Your task to perform on an android device: uninstall "Pluto TV - Live TV and Movies" Image 0: 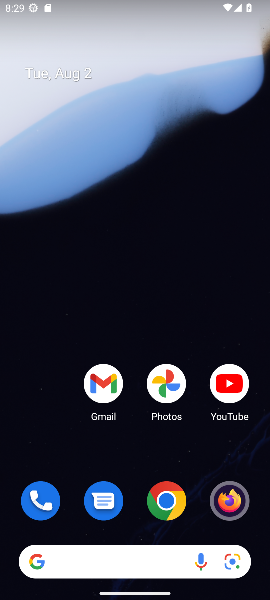
Step 0: drag from (146, 531) to (106, 113)
Your task to perform on an android device: uninstall "Pluto TV - Live TV and Movies" Image 1: 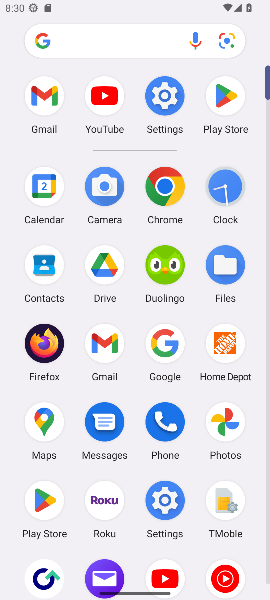
Step 1: click (44, 494)
Your task to perform on an android device: uninstall "Pluto TV - Live TV and Movies" Image 2: 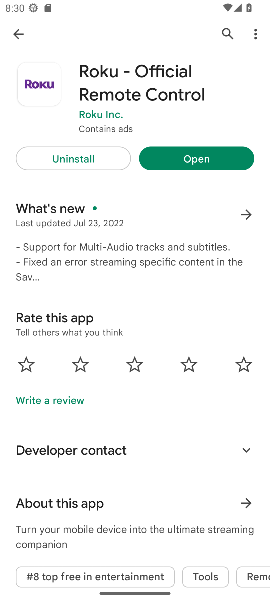
Step 2: click (233, 31)
Your task to perform on an android device: uninstall "Pluto TV - Live TV and Movies" Image 3: 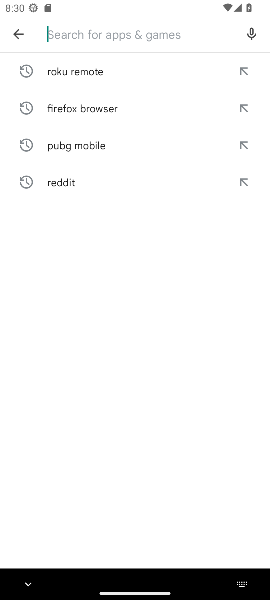
Step 3: type "Pluto TV - Live TV and Movies"
Your task to perform on an android device: uninstall "Pluto TV - Live TV and Movies" Image 4: 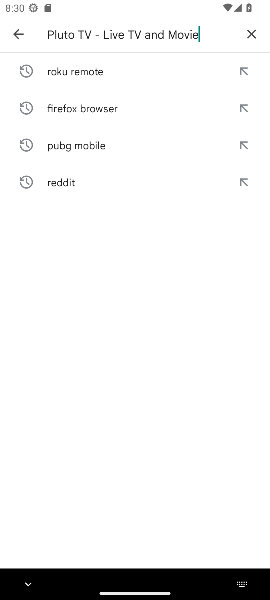
Step 4: type ""
Your task to perform on an android device: uninstall "Pluto TV - Live TV and Movies" Image 5: 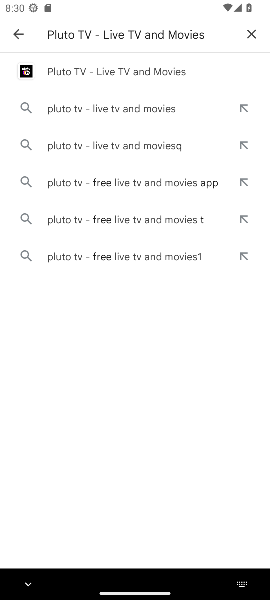
Step 5: click (100, 78)
Your task to perform on an android device: uninstall "Pluto TV - Live TV and Movies" Image 6: 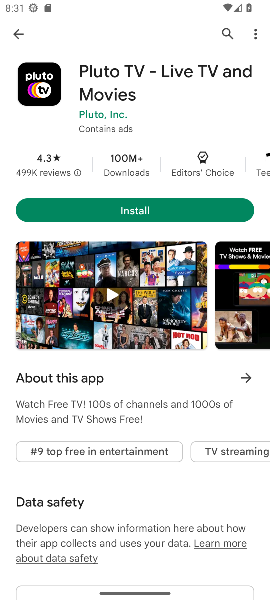
Step 6: task complete